Your task to perform on an android device: What's the weather? Image 0: 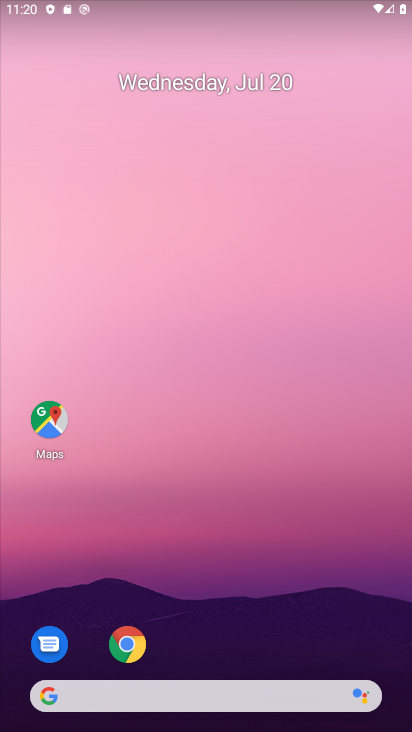
Step 0: click (221, 704)
Your task to perform on an android device: What's the weather? Image 1: 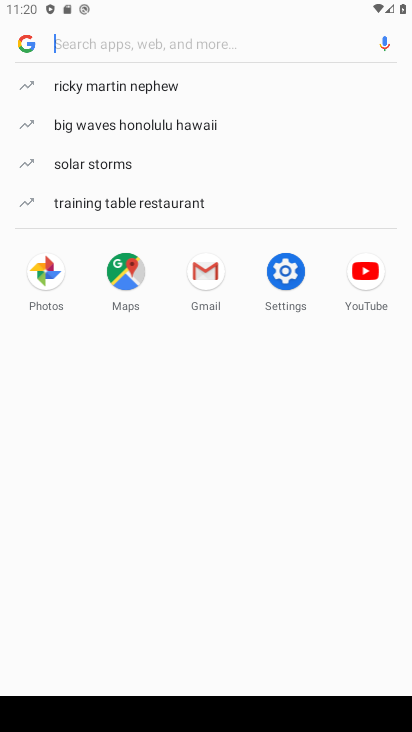
Step 1: type "whats the weather"
Your task to perform on an android device: What's the weather? Image 2: 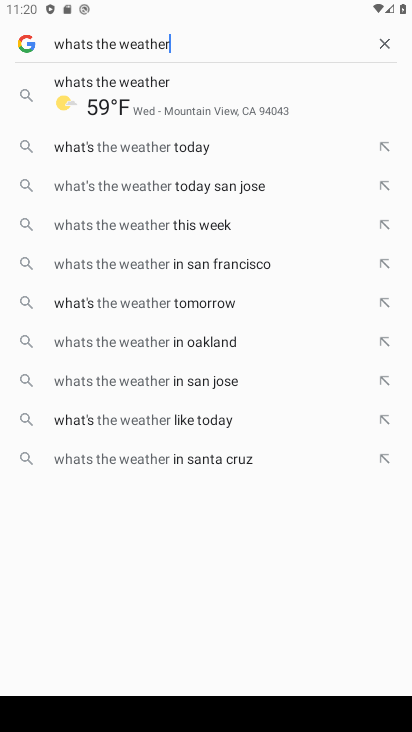
Step 2: click (232, 87)
Your task to perform on an android device: What's the weather? Image 3: 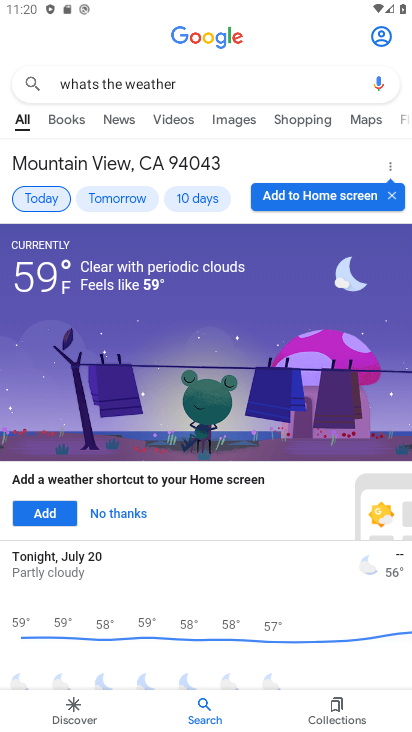
Step 3: task complete